Your task to perform on an android device: show emergency info Image 0: 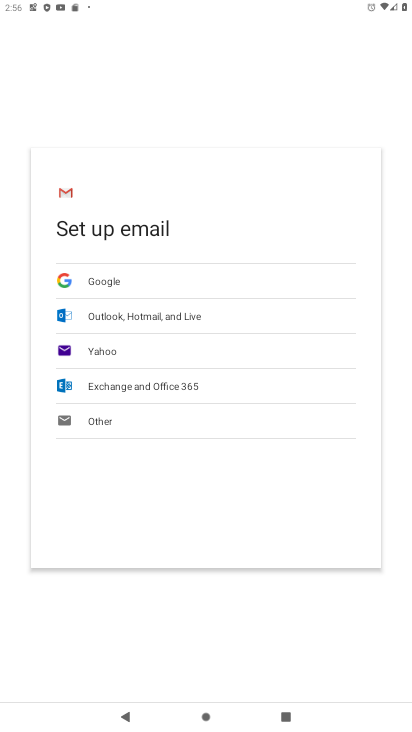
Step 0: press home button
Your task to perform on an android device: show emergency info Image 1: 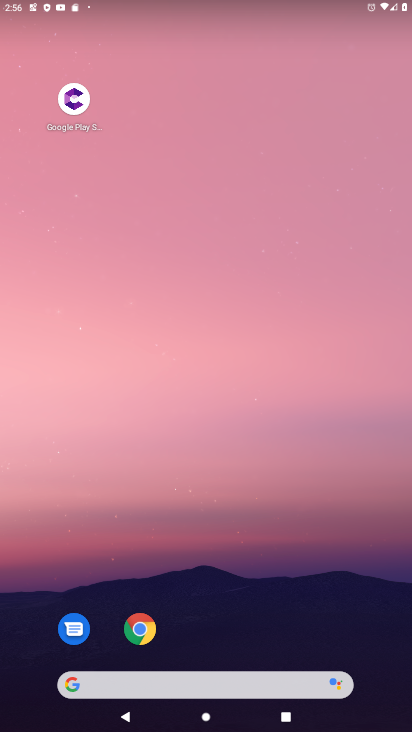
Step 1: drag from (324, 632) to (341, 42)
Your task to perform on an android device: show emergency info Image 2: 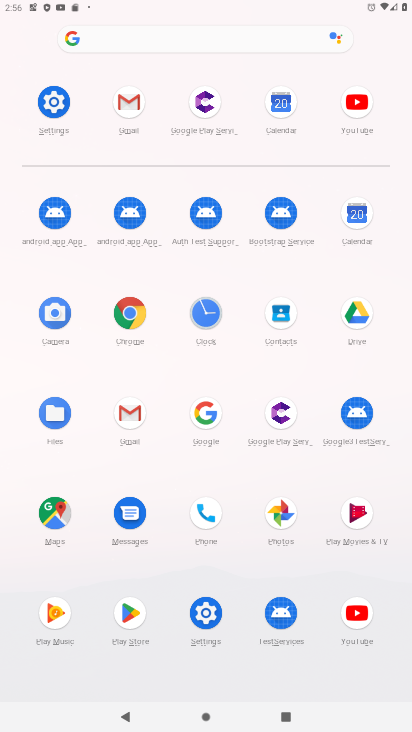
Step 2: click (206, 615)
Your task to perform on an android device: show emergency info Image 3: 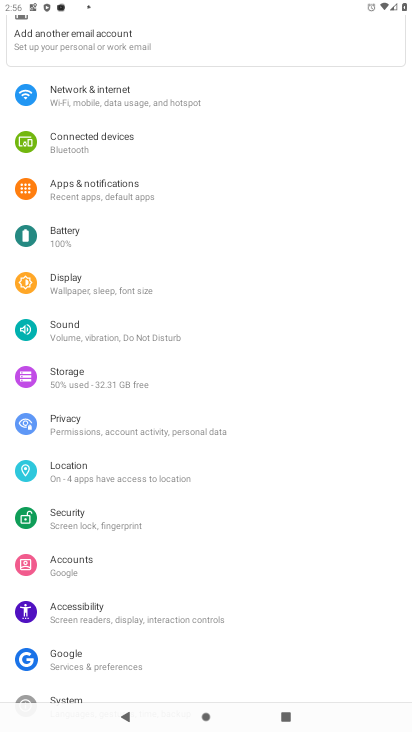
Step 3: drag from (250, 647) to (243, 160)
Your task to perform on an android device: show emergency info Image 4: 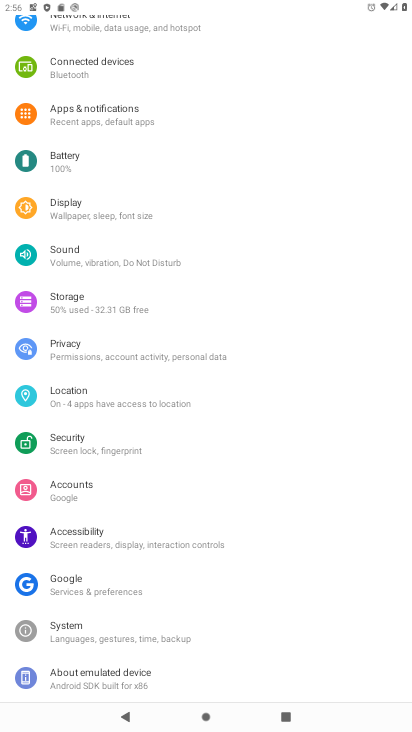
Step 4: click (88, 677)
Your task to perform on an android device: show emergency info Image 5: 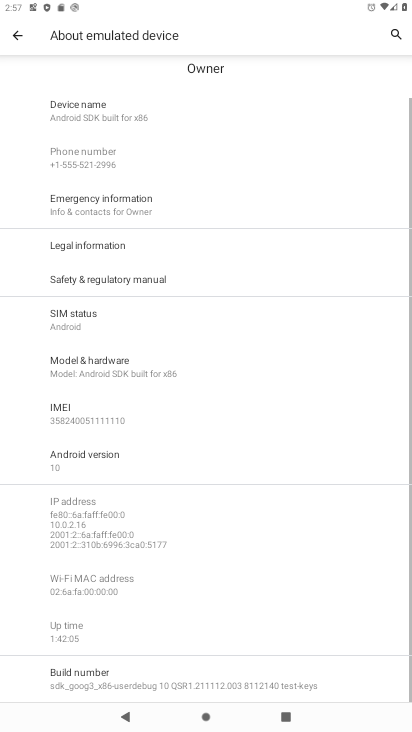
Step 5: click (81, 203)
Your task to perform on an android device: show emergency info Image 6: 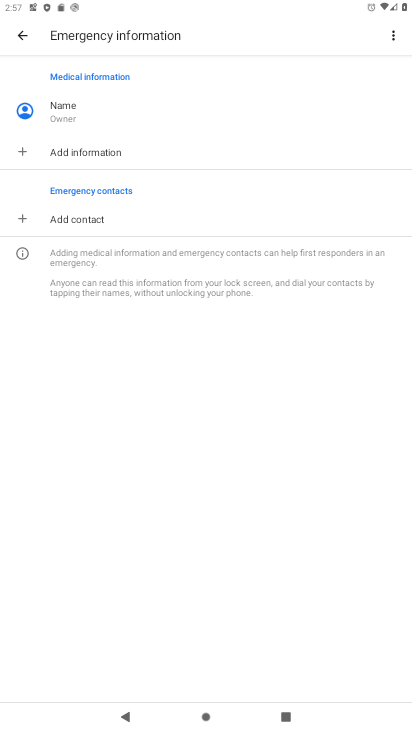
Step 6: task complete